Your task to perform on an android device: turn on location history Image 0: 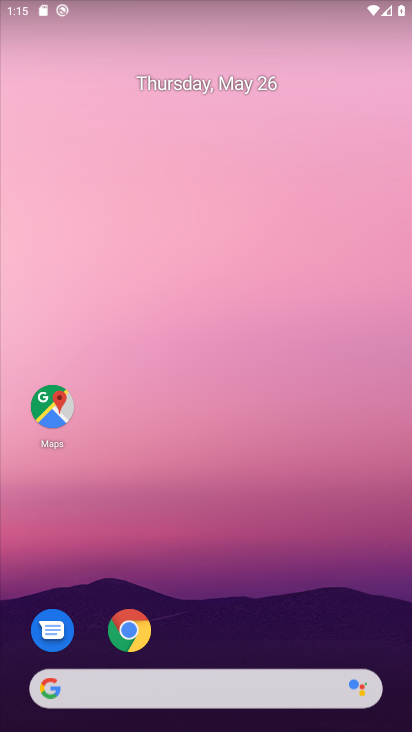
Step 0: click (26, 415)
Your task to perform on an android device: turn on location history Image 1: 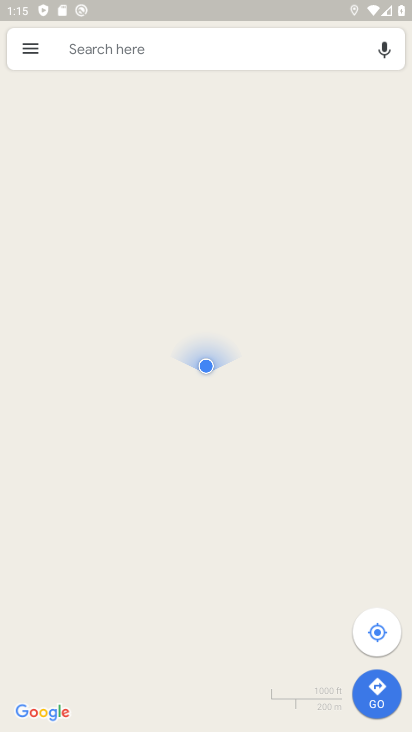
Step 1: click (40, 52)
Your task to perform on an android device: turn on location history Image 2: 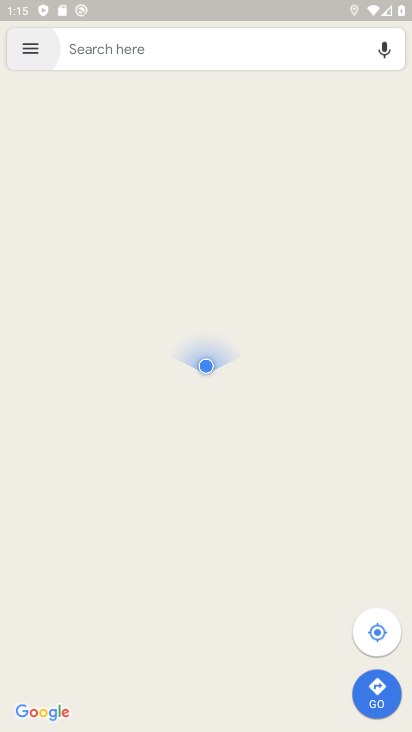
Step 2: click (27, 52)
Your task to perform on an android device: turn on location history Image 3: 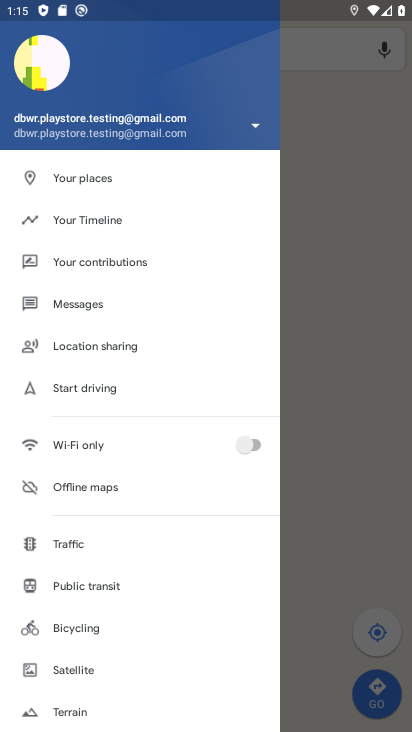
Step 3: click (117, 228)
Your task to perform on an android device: turn on location history Image 4: 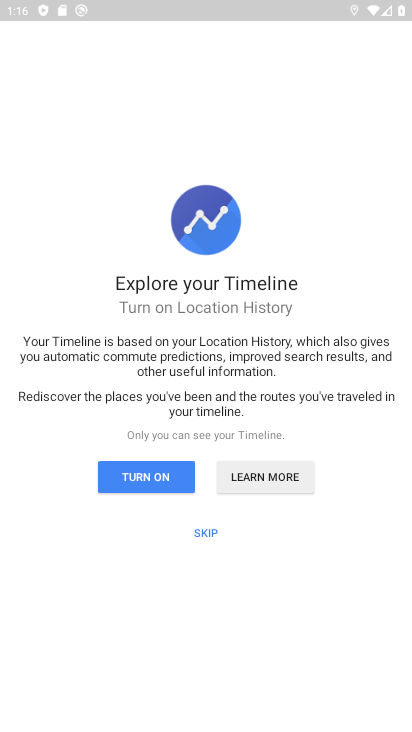
Step 4: click (165, 484)
Your task to perform on an android device: turn on location history Image 5: 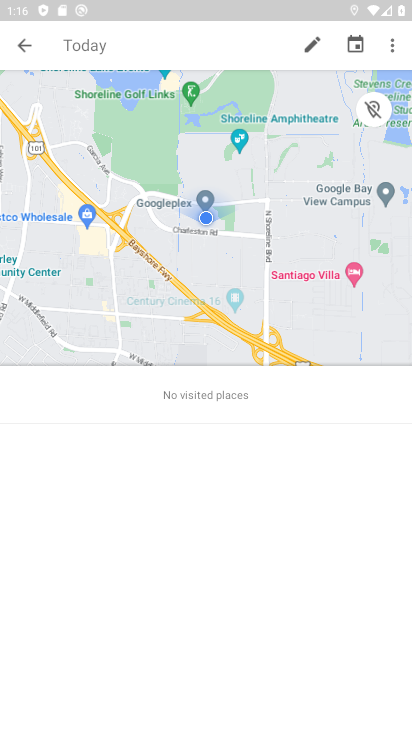
Step 5: click (392, 45)
Your task to perform on an android device: turn on location history Image 6: 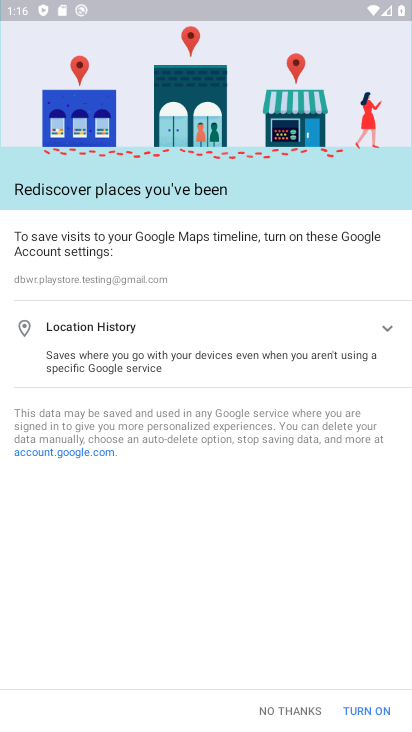
Step 6: click (368, 709)
Your task to perform on an android device: turn on location history Image 7: 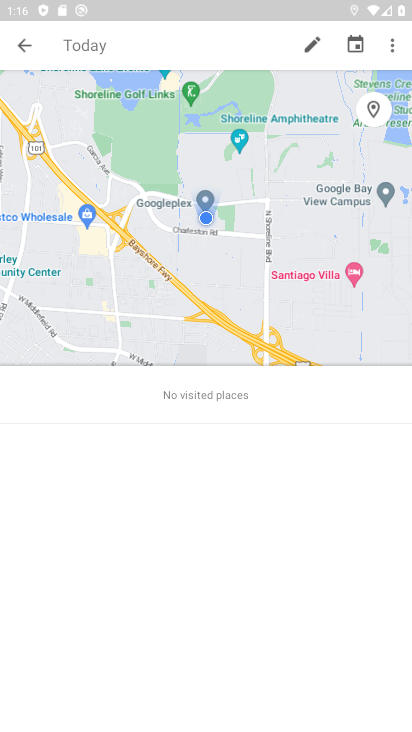
Step 7: task complete